Your task to perform on an android device: visit the assistant section in the google photos Image 0: 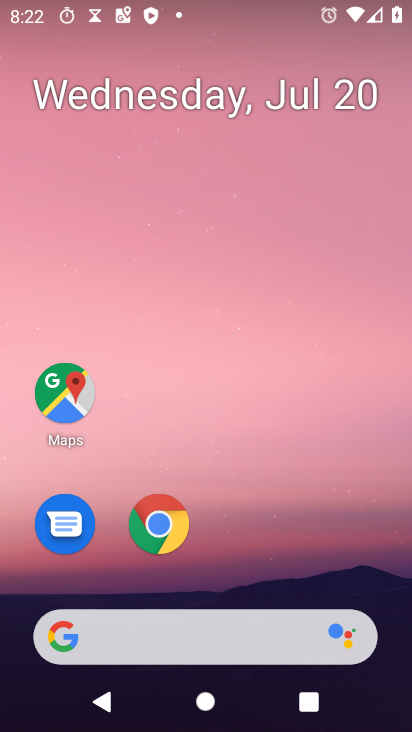
Step 0: drag from (197, 615) to (304, 169)
Your task to perform on an android device: visit the assistant section in the google photos Image 1: 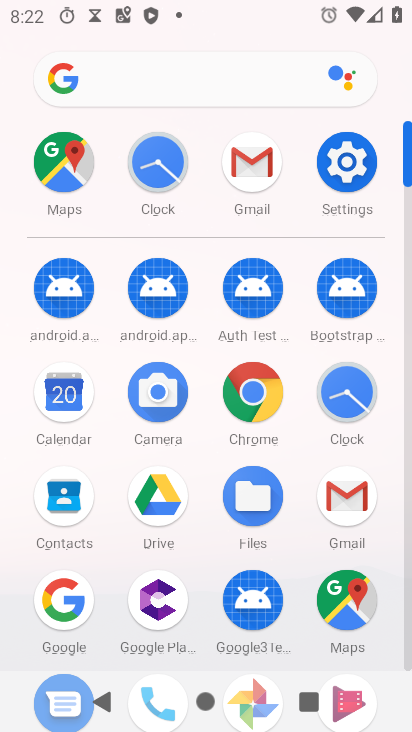
Step 1: drag from (204, 607) to (262, 135)
Your task to perform on an android device: visit the assistant section in the google photos Image 2: 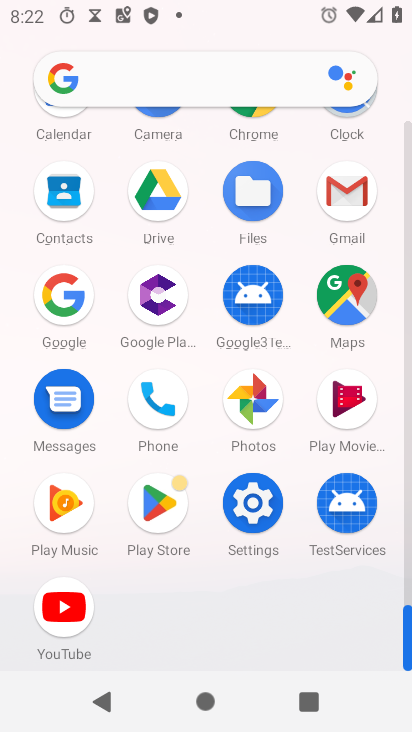
Step 2: click (251, 409)
Your task to perform on an android device: visit the assistant section in the google photos Image 3: 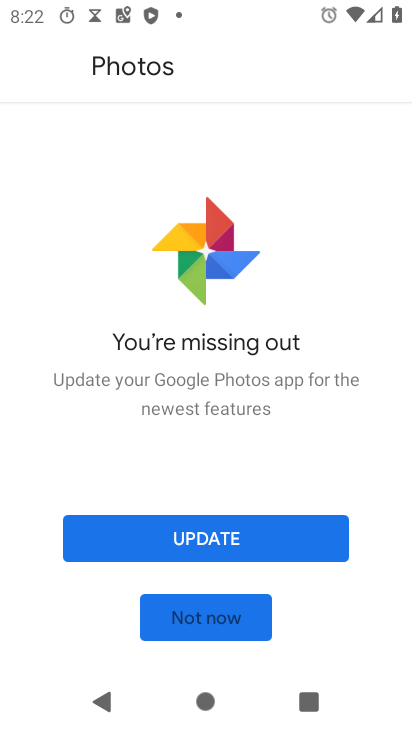
Step 3: click (191, 619)
Your task to perform on an android device: visit the assistant section in the google photos Image 4: 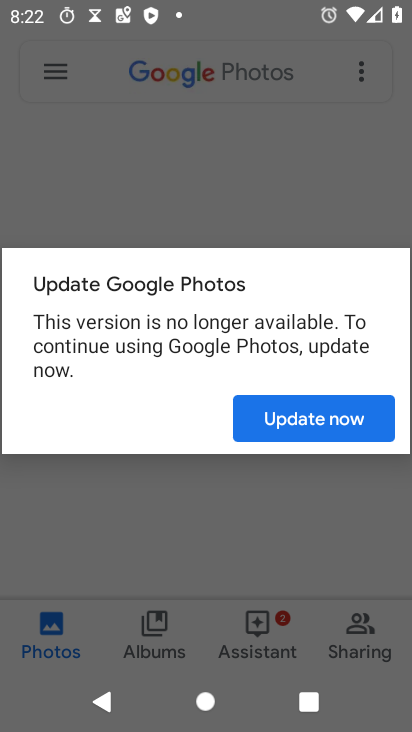
Step 4: click (285, 417)
Your task to perform on an android device: visit the assistant section in the google photos Image 5: 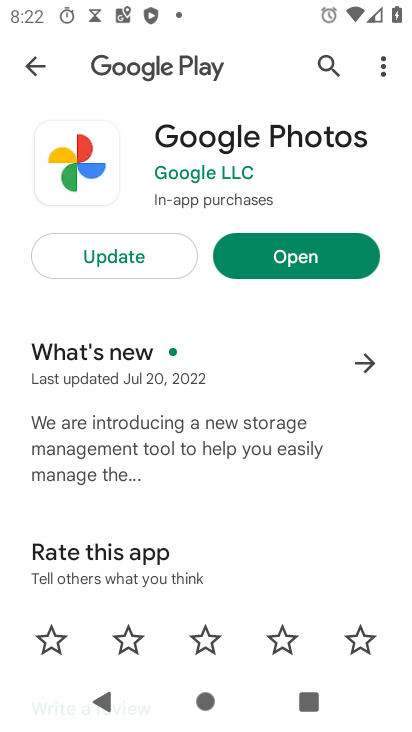
Step 5: click (297, 264)
Your task to perform on an android device: visit the assistant section in the google photos Image 6: 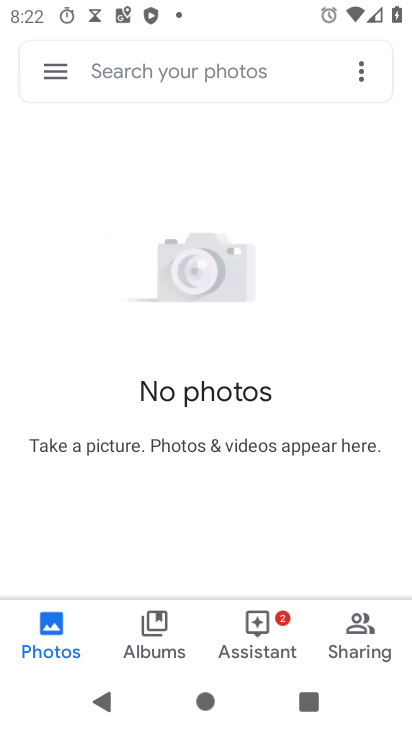
Step 6: click (250, 643)
Your task to perform on an android device: visit the assistant section in the google photos Image 7: 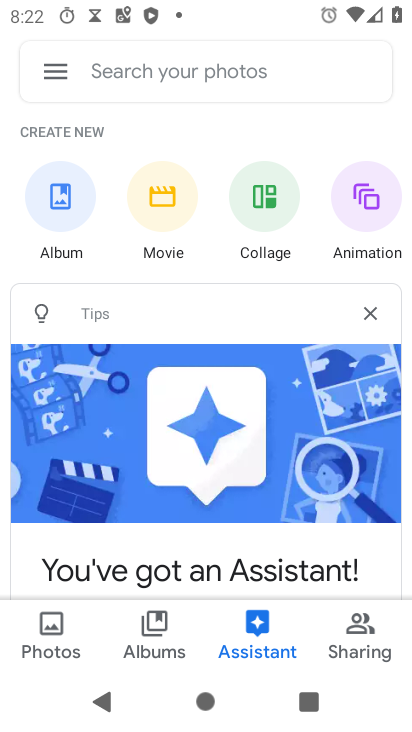
Step 7: task complete